Your task to perform on an android device: see tabs open on other devices in the chrome app Image 0: 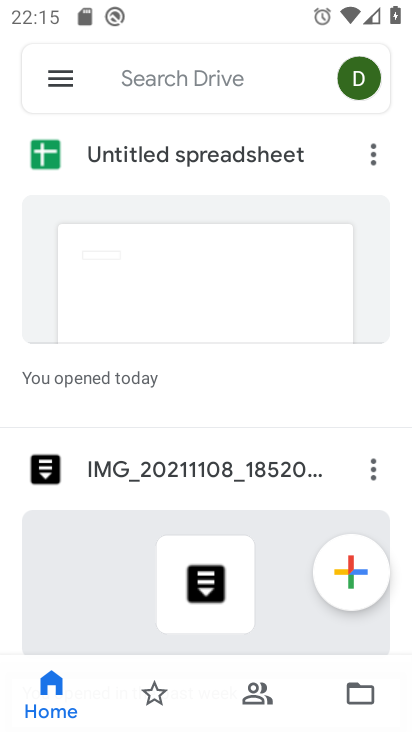
Step 0: press home button
Your task to perform on an android device: see tabs open on other devices in the chrome app Image 1: 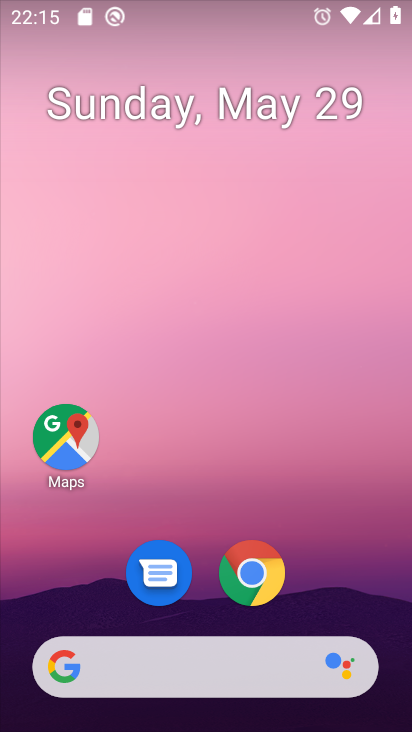
Step 1: click (256, 573)
Your task to perform on an android device: see tabs open on other devices in the chrome app Image 2: 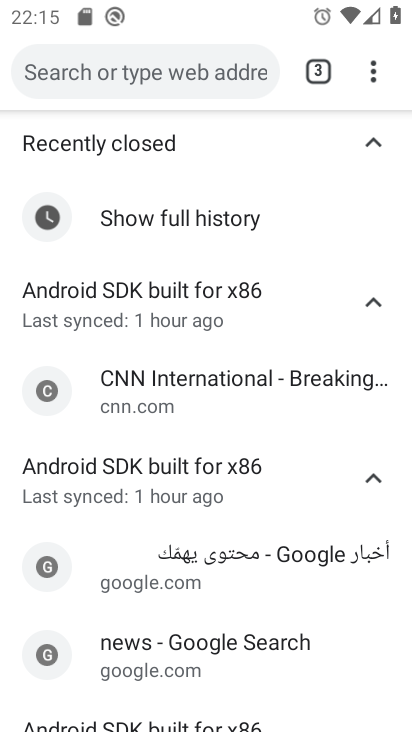
Step 2: click (375, 68)
Your task to perform on an android device: see tabs open on other devices in the chrome app Image 3: 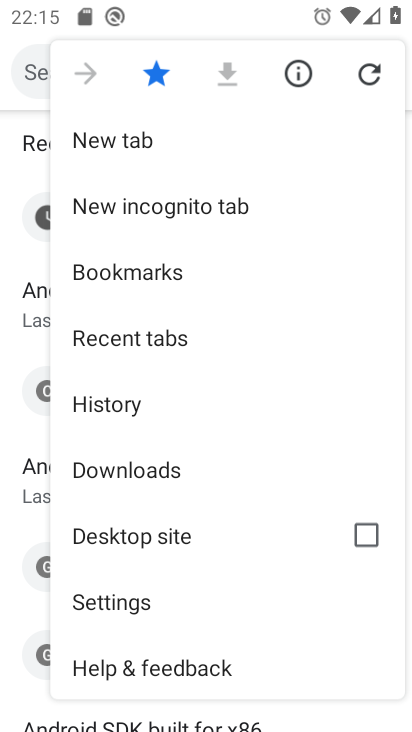
Step 3: click (167, 332)
Your task to perform on an android device: see tabs open on other devices in the chrome app Image 4: 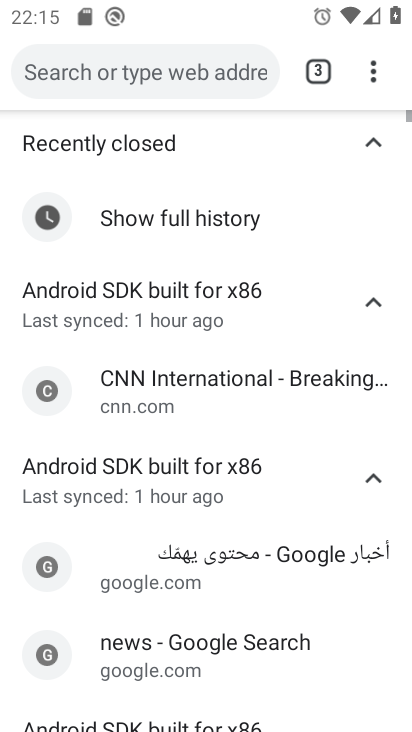
Step 4: task complete